Your task to perform on an android device: Open Yahoo.com Image 0: 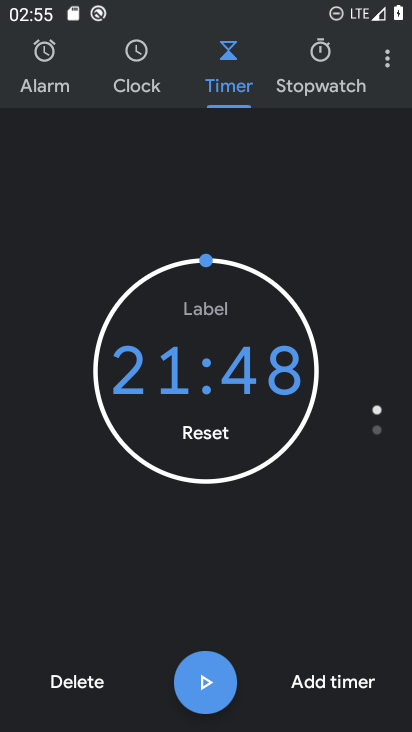
Step 0: press home button
Your task to perform on an android device: Open Yahoo.com Image 1: 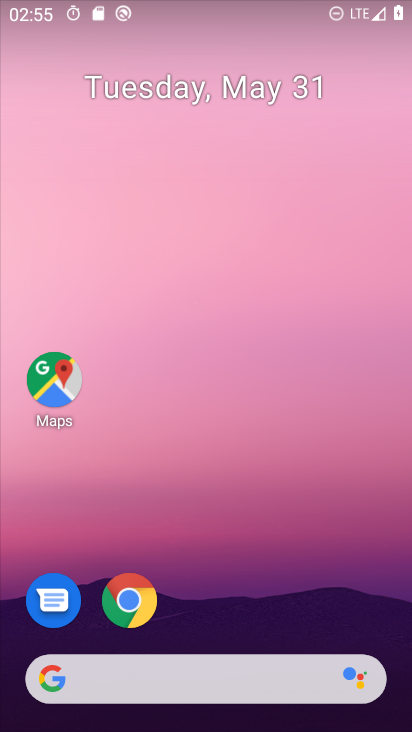
Step 1: click (127, 602)
Your task to perform on an android device: Open Yahoo.com Image 2: 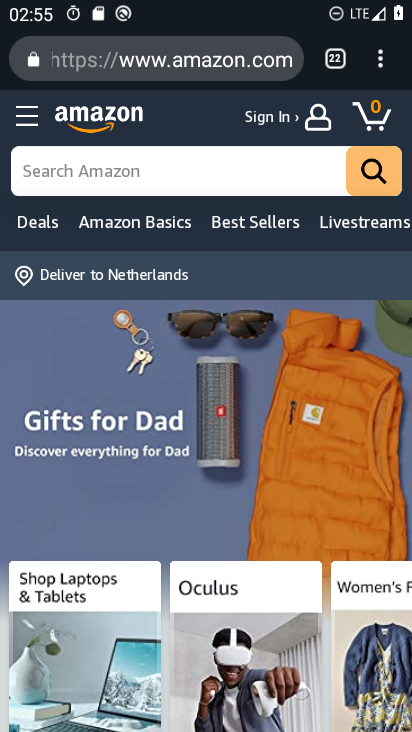
Step 2: click (382, 65)
Your task to perform on an android device: Open Yahoo.com Image 3: 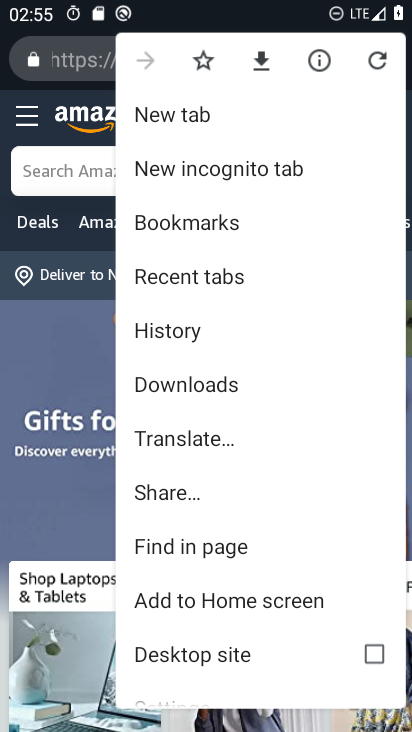
Step 3: click (184, 111)
Your task to perform on an android device: Open Yahoo.com Image 4: 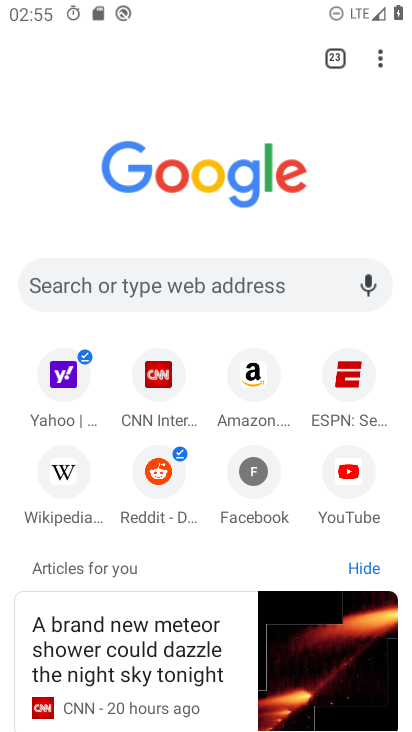
Step 4: click (63, 375)
Your task to perform on an android device: Open Yahoo.com Image 5: 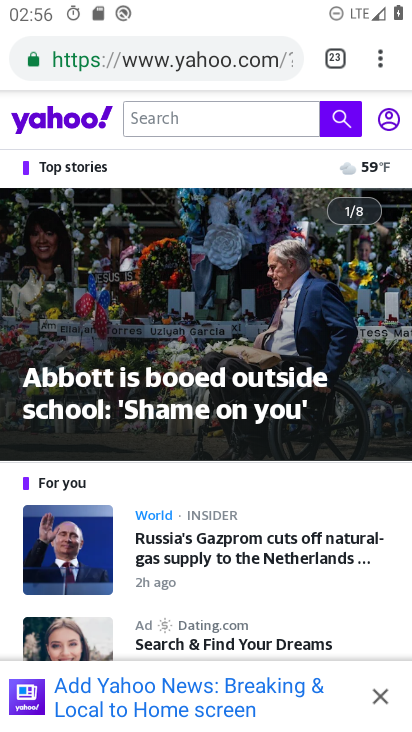
Step 5: task complete